Your task to perform on an android device: check storage Image 0: 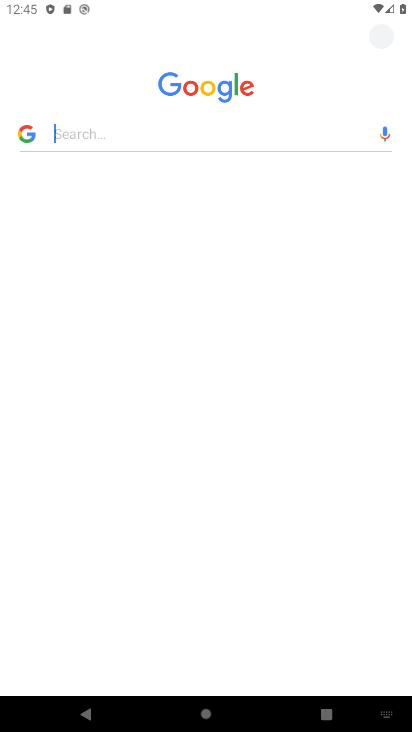
Step 0: press home button
Your task to perform on an android device: check storage Image 1: 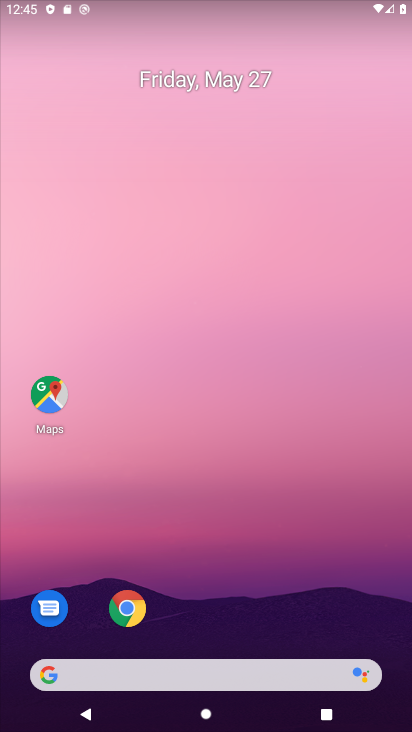
Step 1: drag from (194, 658) to (271, 231)
Your task to perform on an android device: check storage Image 2: 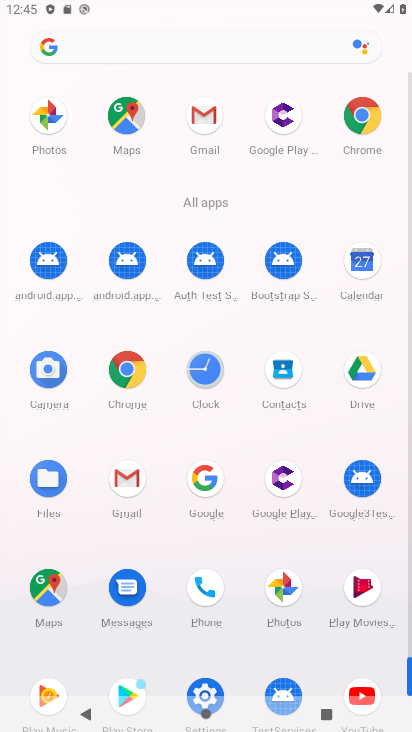
Step 2: drag from (173, 576) to (236, 356)
Your task to perform on an android device: check storage Image 3: 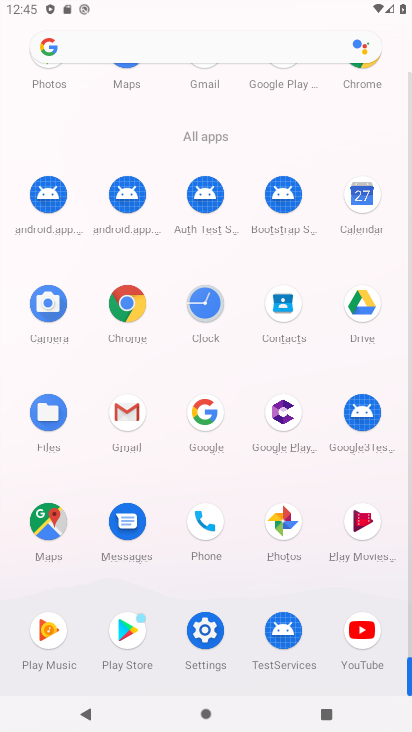
Step 3: click (203, 647)
Your task to perform on an android device: check storage Image 4: 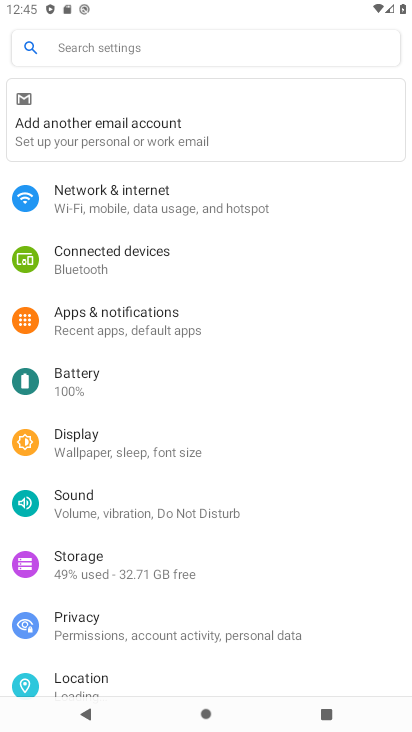
Step 4: drag from (100, 554) to (183, 356)
Your task to perform on an android device: check storage Image 5: 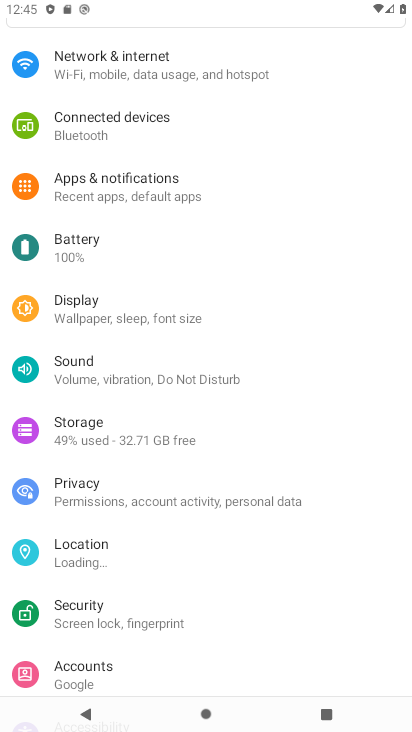
Step 5: click (138, 424)
Your task to perform on an android device: check storage Image 6: 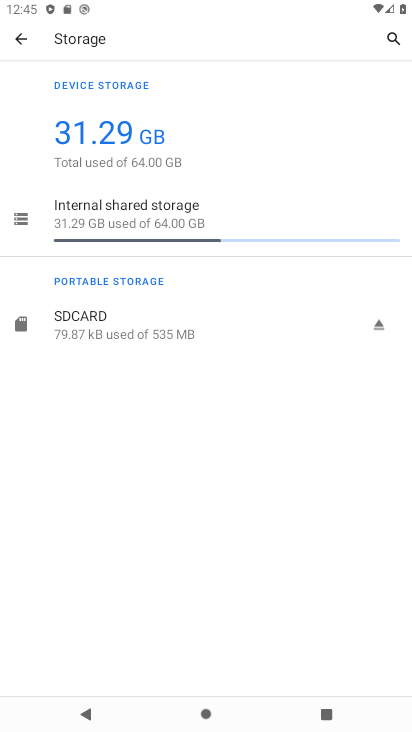
Step 6: task complete